Your task to perform on an android device: Open display settings Image 0: 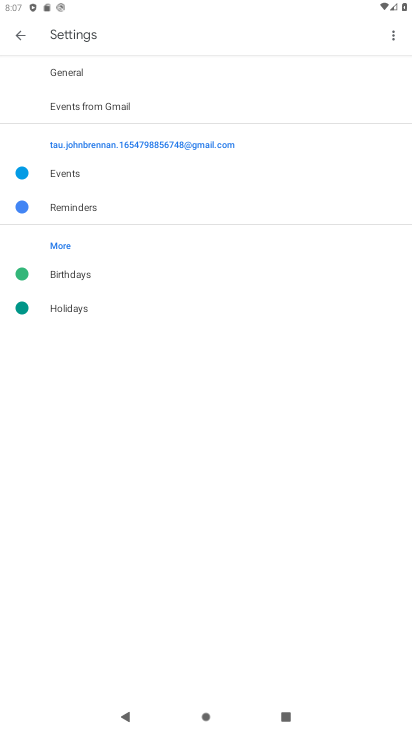
Step 0: press home button
Your task to perform on an android device: Open display settings Image 1: 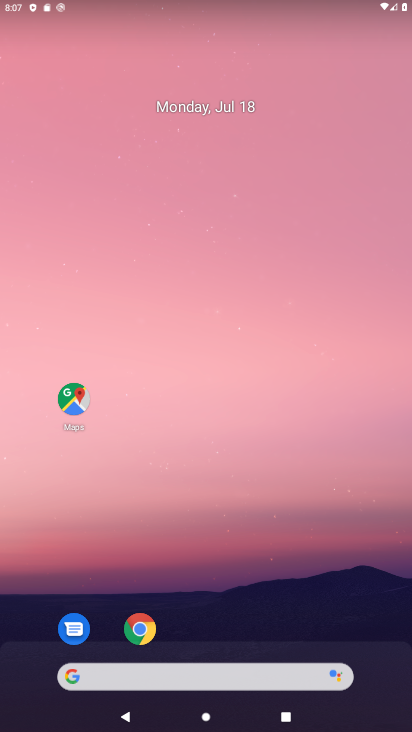
Step 1: drag from (203, 641) to (198, 163)
Your task to perform on an android device: Open display settings Image 2: 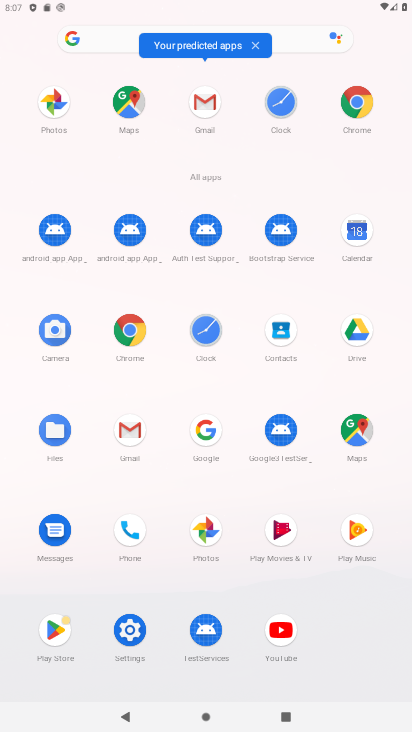
Step 2: click (124, 626)
Your task to perform on an android device: Open display settings Image 3: 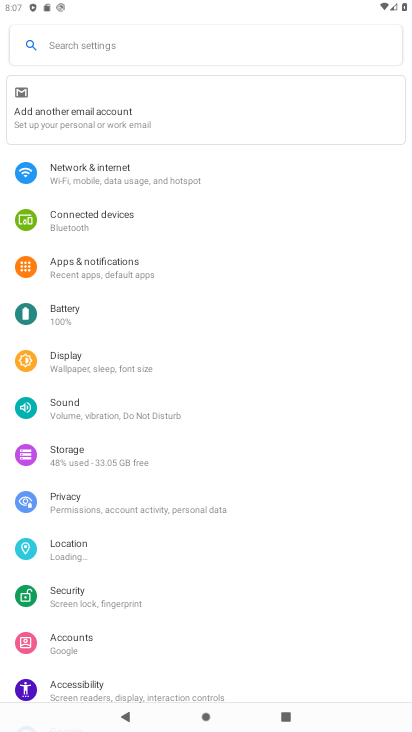
Step 3: click (71, 365)
Your task to perform on an android device: Open display settings Image 4: 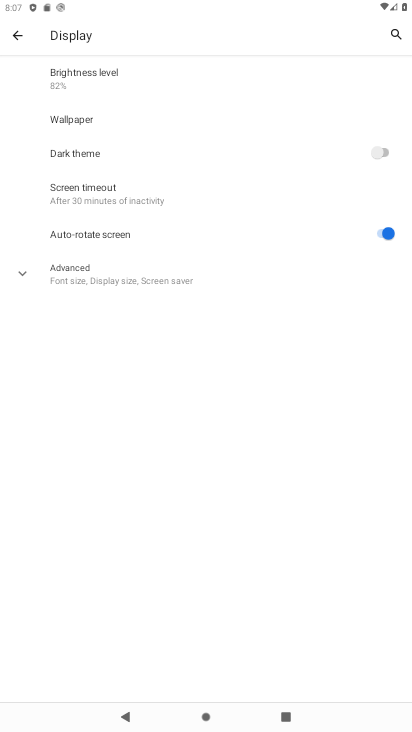
Step 4: click (83, 261)
Your task to perform on an android device: Open display settings Image 5: 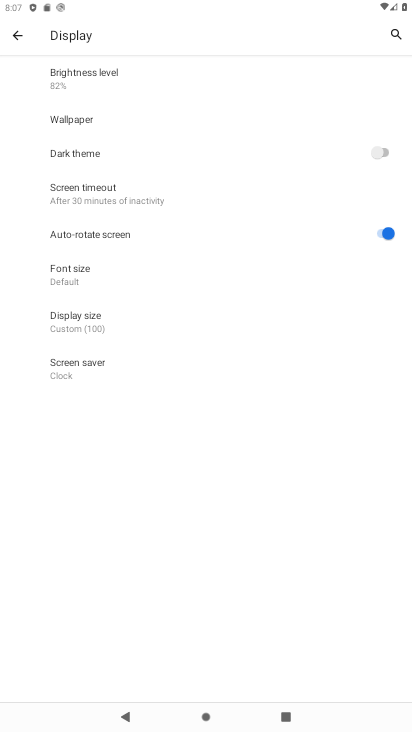
Step 5: task complete